Your task to perform on an android device: Open maps Image 0: 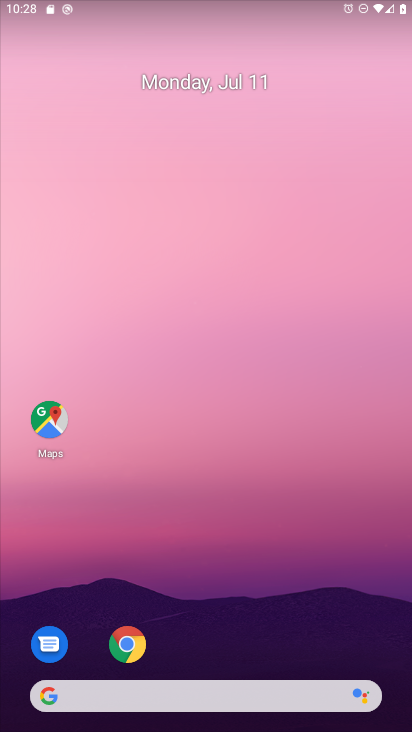
Step 0: click (45, 418)
Your task to perform on an android device: Open maps Image 1: 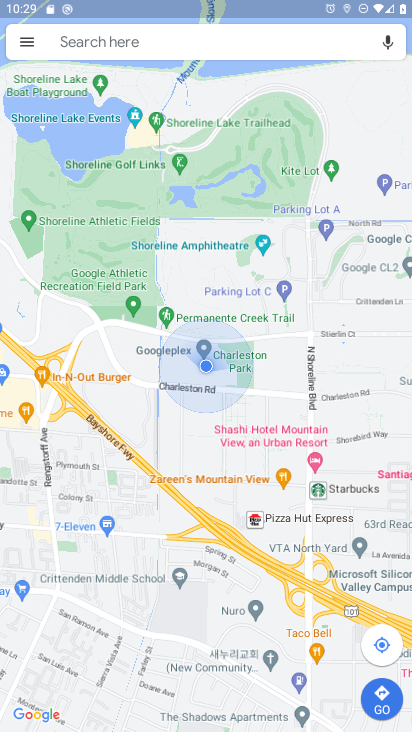
Step 1: task complete